Your task to perform on an android device: Search for pizza restaurants on Maps Image 0: 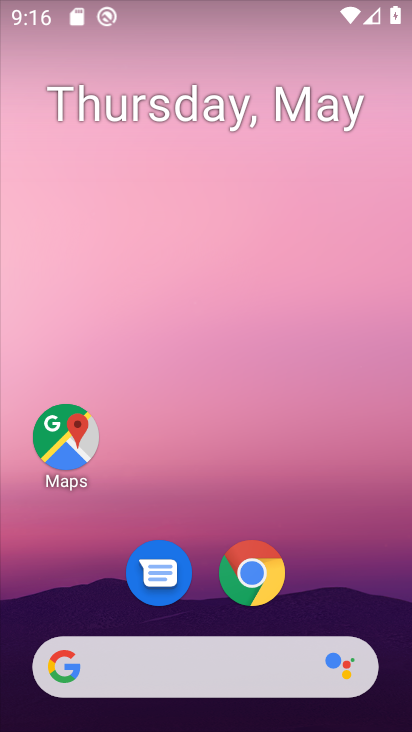
Step 0: click (69, 434)
Your task to perform on an android device: Search for pizza restaurants on Maps Image 1: 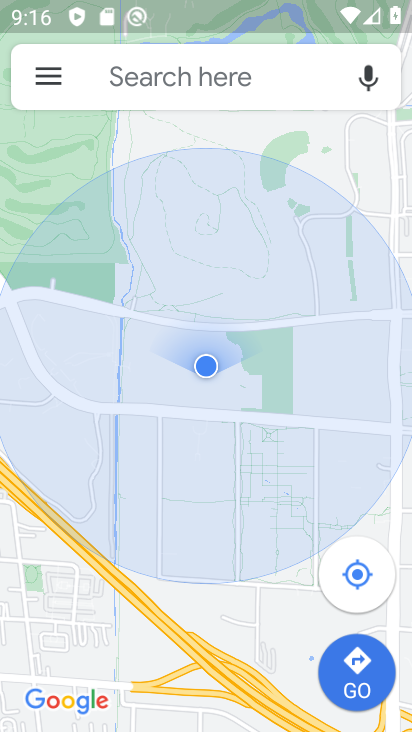
Step 1: click (149, 71)
Your task to perform on an android device: Search for pizza restaurants on Maps Image 2: 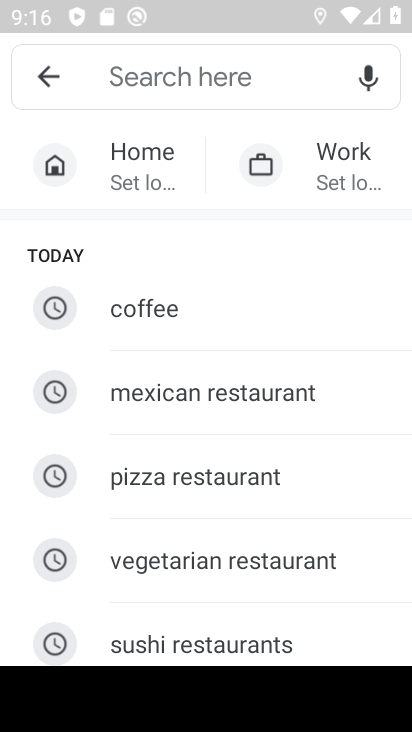
Step 2: click (140, 487)
Your task to perform on an android device: Search for pizza restaurants on Maps Image 3: 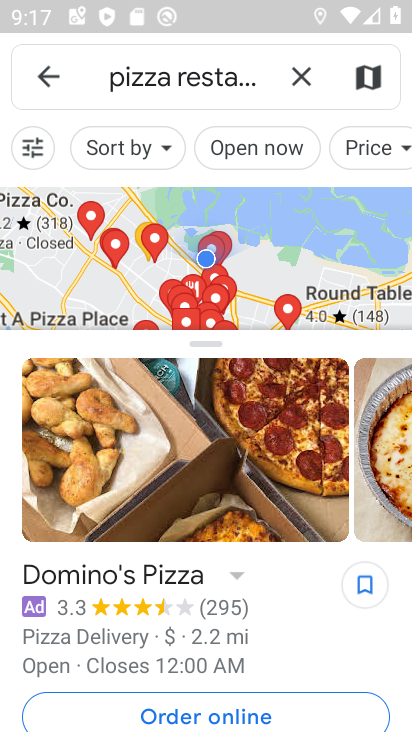
Step 3: task complete